Your task to perform on an android device: Search for sushi restaurants on Maps Image 0: 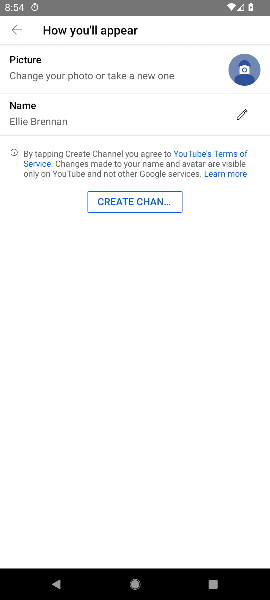
Step 0: press home button
Your task to perform on an android device: Search for sushi restaurants on Maps Image 1: 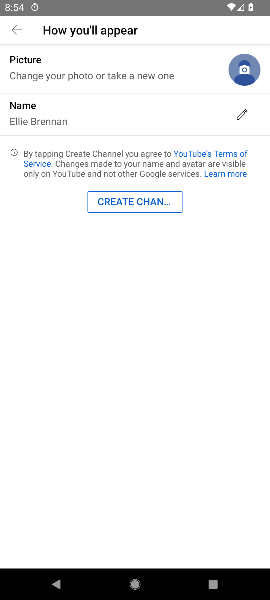
Step 1: press home button
Your task to perform on an android device: Search for sushi restaurants on Maps Image 2: 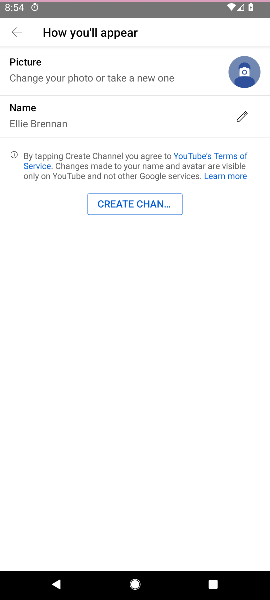
Step 2: press home button
Your task to perform on an android device: Search for sushi restaurants on Maps Image 3: 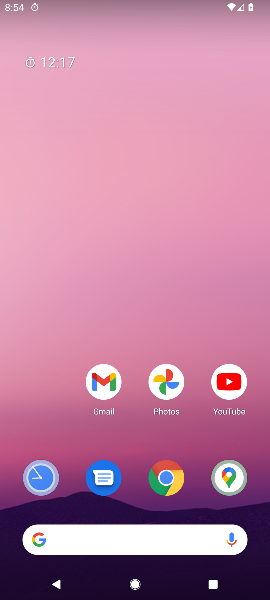
Step 3: press home button
Your task to perform on an android device: Search for sushi restaurants on Maps Image 4: 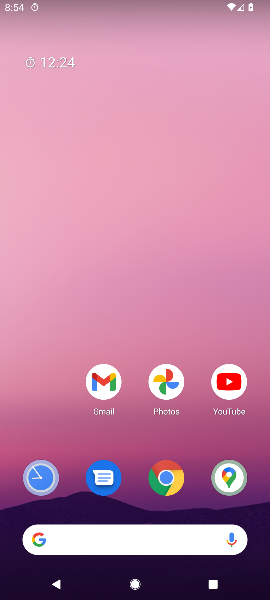
Step 4: drag from (159, 450) to (147, 2)
Your task to perform on an android device: Search for sushi restaurants on Maps Image 5: 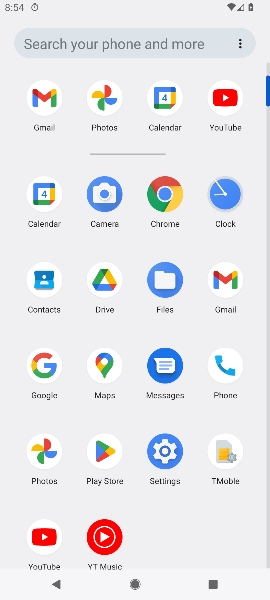
Step 5: click (108, 371)
Your task to perform on an android device: Search for sushi restaurants on Maps Image 6: 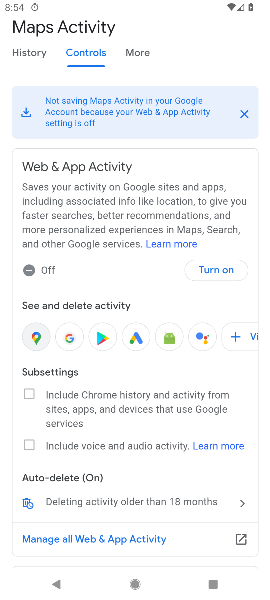
Step 6: press back button
Your task to perform on an android device: Search for sushi restaurants on Maps Image 7: 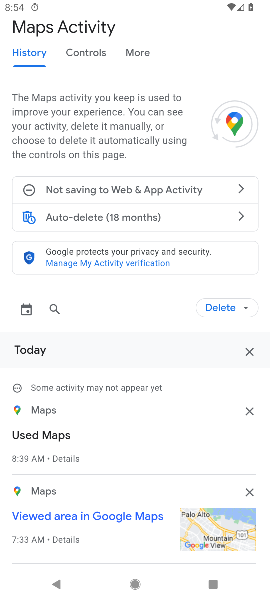
Step 7: press back button
Your task to perform on an android device: Search for sushi restaurants on Maps Image 8: 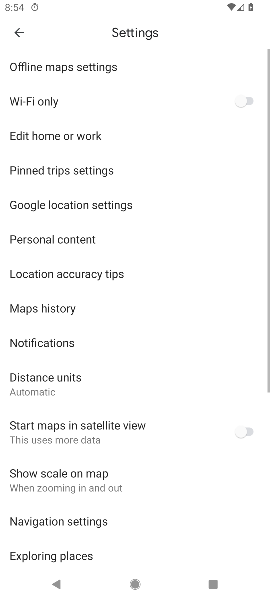
Step 8: press back button
Your task to perform on an android device: Search for sushi restaurants on Maps Image 9: 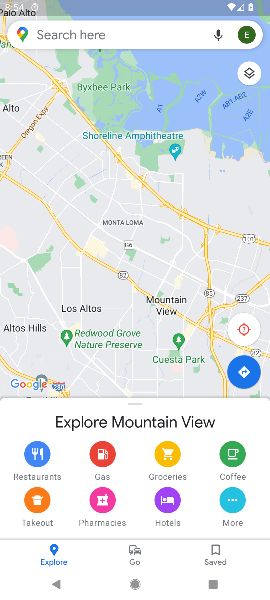
Step 9: click (170, 40)
Your task to perform on an android device: Search for sushi restaurants on Maps Image 10: 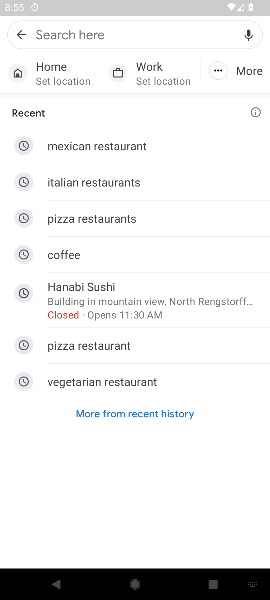
Step 10: type "sushi restaurants "
Your task to perform on an android device: Search for sushi restaurants on Maps Image 11: 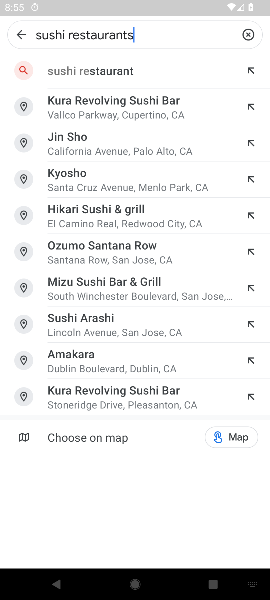
Step 11: type ""
Your task to perform on an android device: Search for sushi restaurants on Maps Image 12: 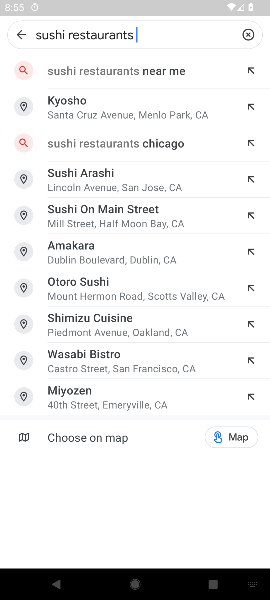
Step 12: click (55, 67)
Your task to perform on an android device: Search for sushi restaurants on Maps Image 13: 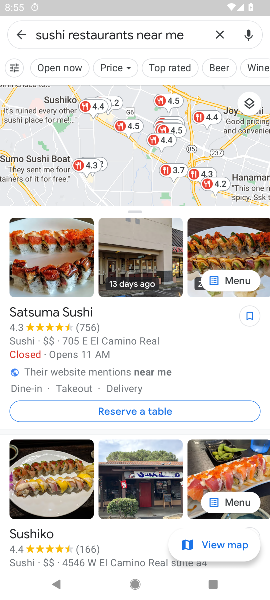
Step 13: task complete